Your task to perform on an android device: find photos in the google photos app Image 0: 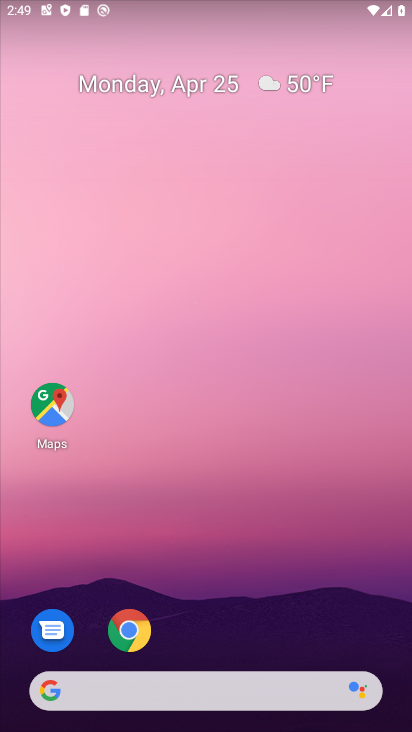
Step 0: click (45, 411)
Your task to perform on an android device: find photos in the google photos app Image 1: 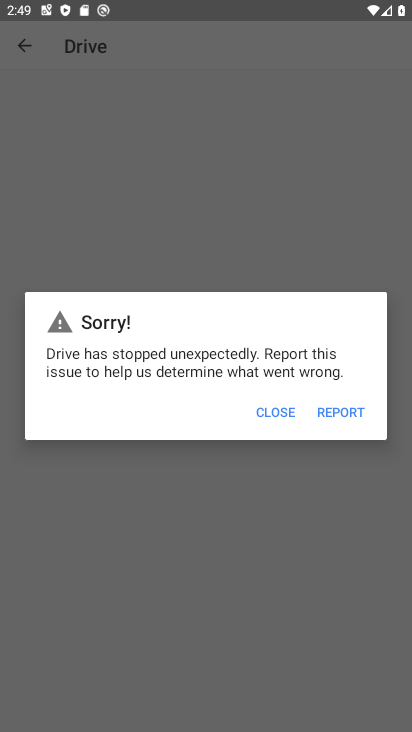
Step 1: press home button
Your task to perform on an android device: find photos in the google photos app Image 2: 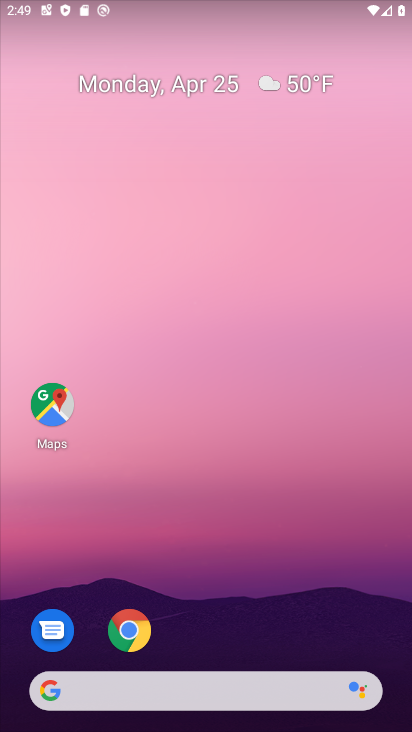
Step 2: drag from (249, 605) to (92, 206)
Your task to perform on an android device: find photos in the google photos app Image 3: 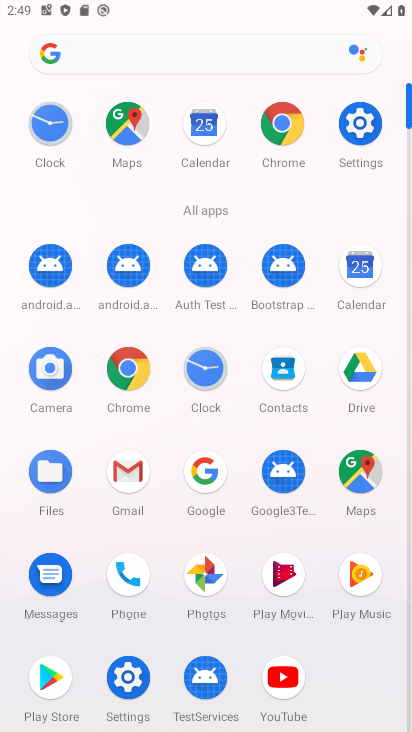
Step 3: click (201, 570)
Your task to perform on an android device: find photos in the google photos app Image 4: 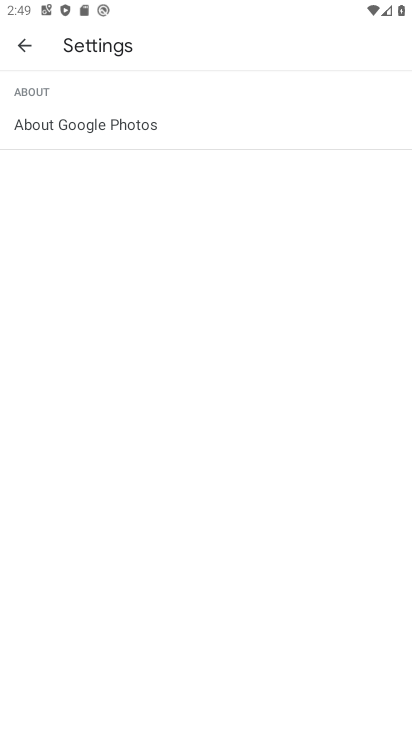
Step 4: press back button
Your task to perform on an android device: find photos in the google photos app Image 5: 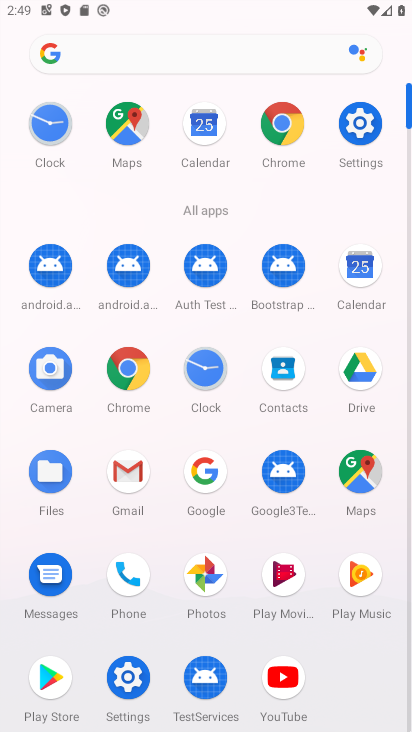
Step 5: click (200, 577)
Your task to perform on an android device: find photos in the google photos app Image 6: 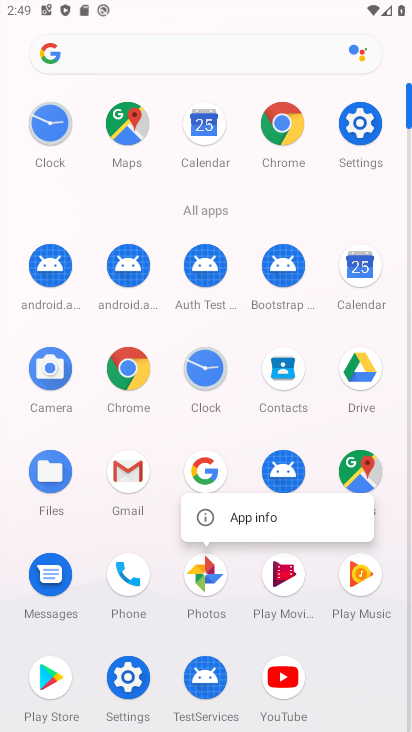
Step 6: click (200, 577)
Your task to perform on an android device: find photos in the google photos app Image 7: 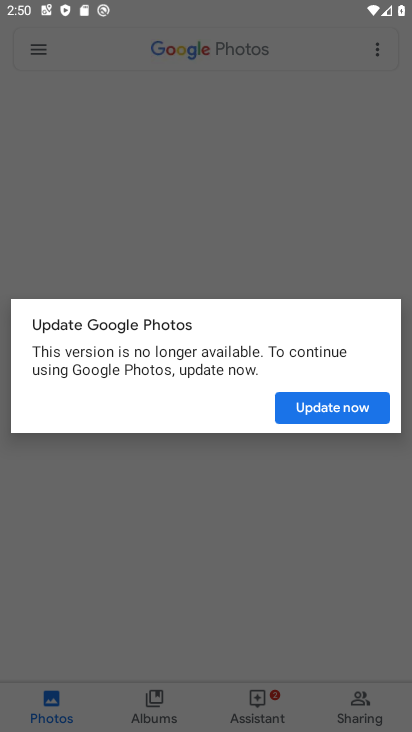
Step 7: click (330, 411)
Your task to perform on an android device: find photos in the google photos app Image 8: 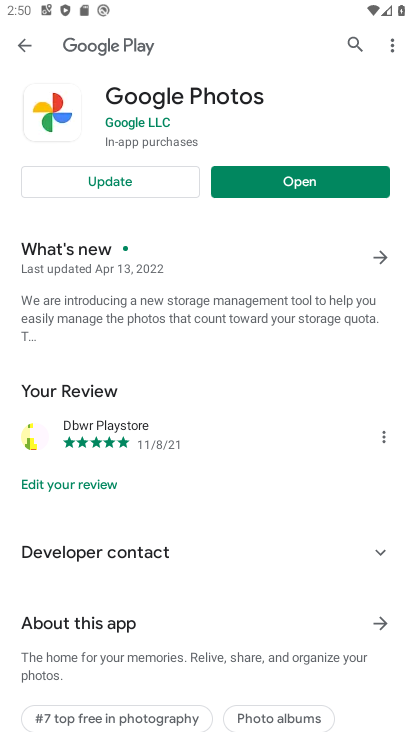
Step 8: click (117, 176)
Your task to perform on an android device: find photos in the google photos app Image 9: 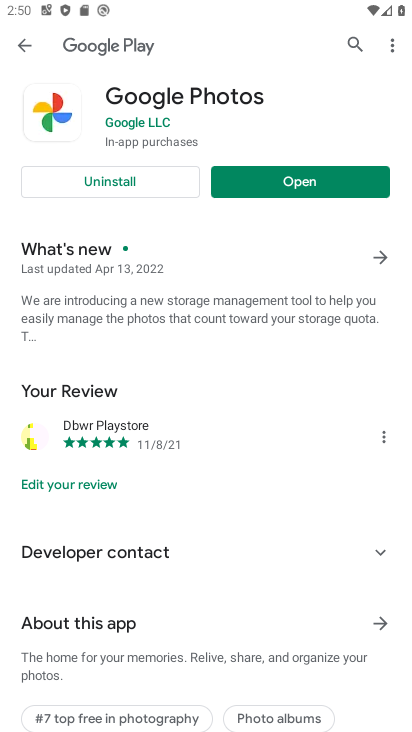
Step 9: click (313, 173)
Your task to perform on an android device: find photos in the google photos app Image 10: 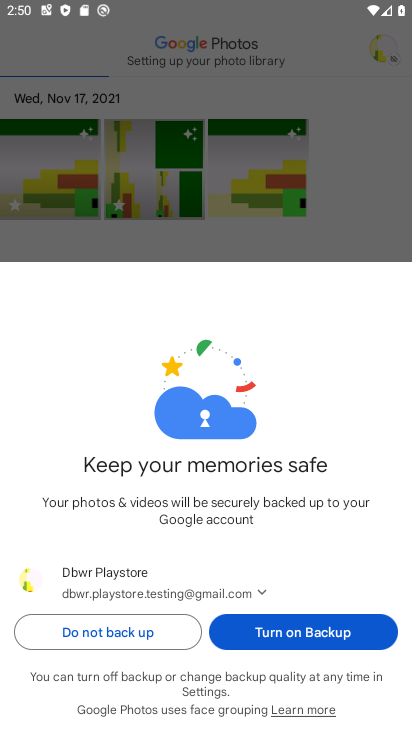
Step 10: click (303, 215)
Your task to perform on an android device: find photos in the google photos app Image 11: 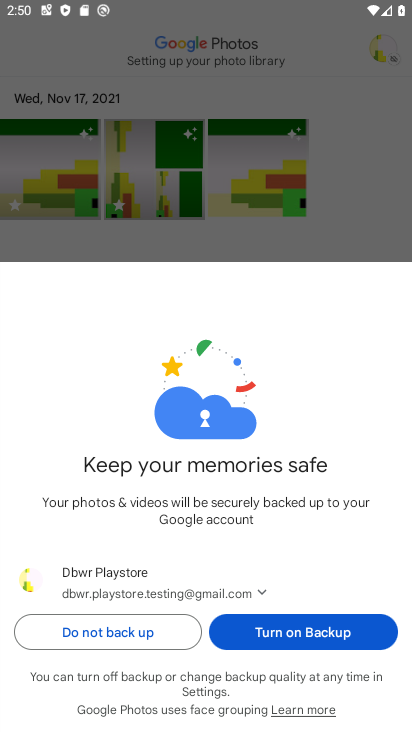
Step 11: task complete